Your task to perform on an android device: clear history in the chrome app Image 0: 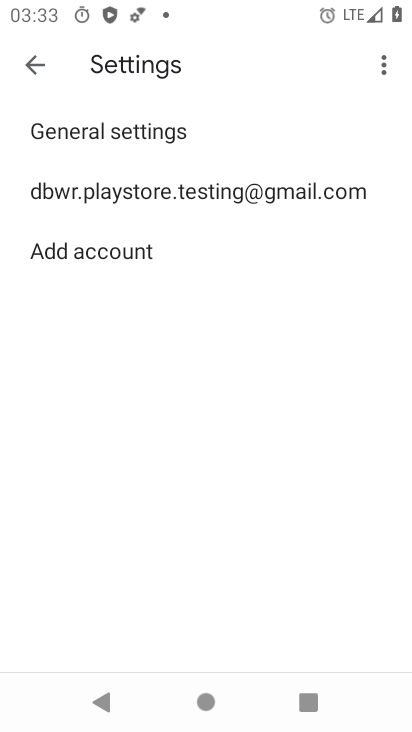
Step 0: click (270, 382)
Your task to perform on an android device: clear history in the chrome app Image 1: 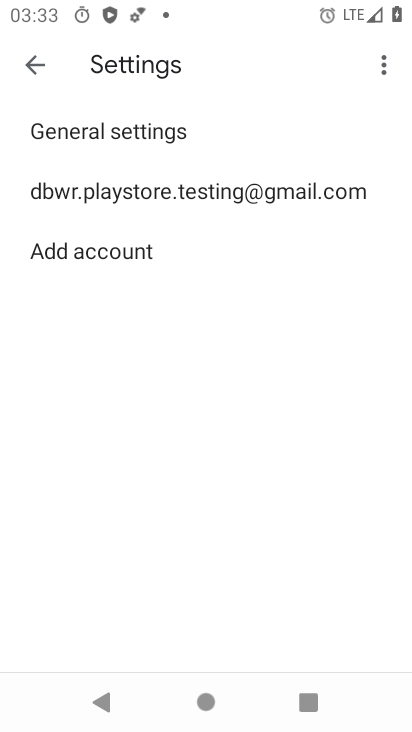
Step 1: press home button
Your task to perform on an android device: clear history in the chrome app Image 2: 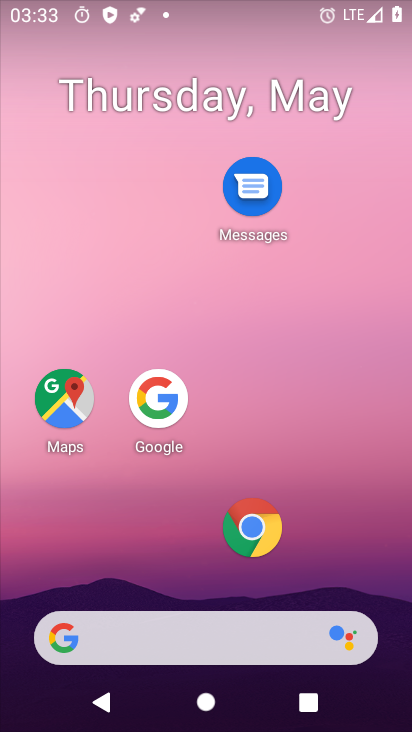
Step 2: drag from (204, 548) to (403, 437)
Your task to perform on an android device: clear history in the chrome app Image 3: 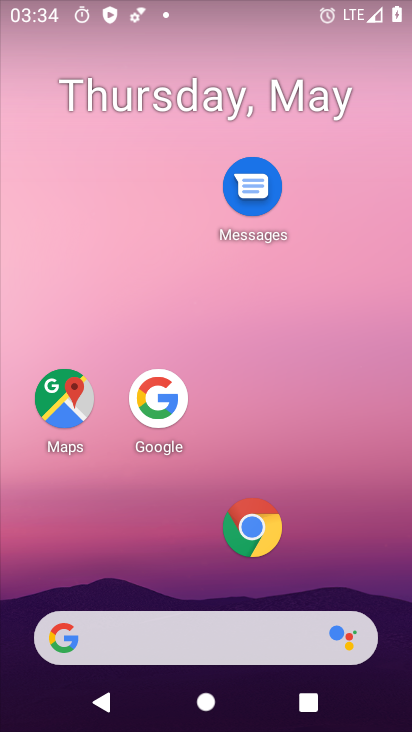
Step 3: click (261, 525)
Your task to perform on an android device: clear history in the chrome app Image 4: 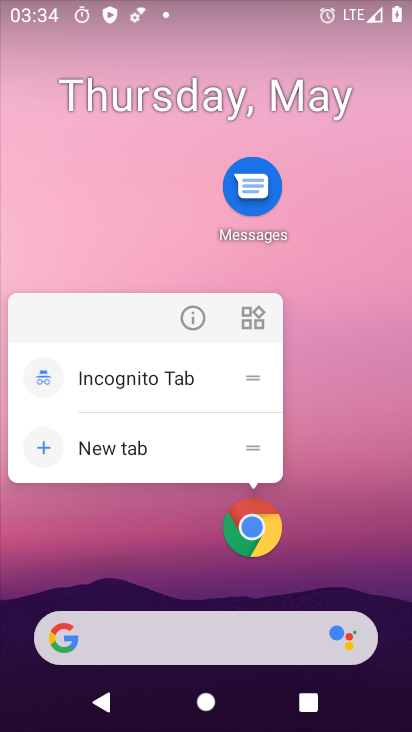
Step 4: click (204, 320)
Your task to perform on an android device: clear history in the chrome app Image 5: 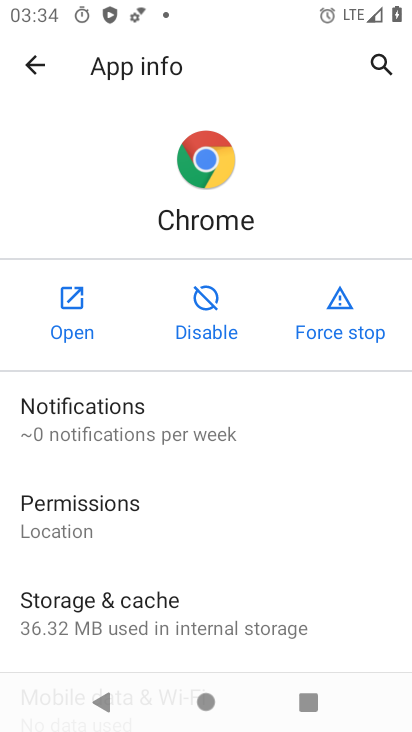
Step 5: click (85, 303)
Your task to perform on an android device: clear history in the chrome app Image 6: 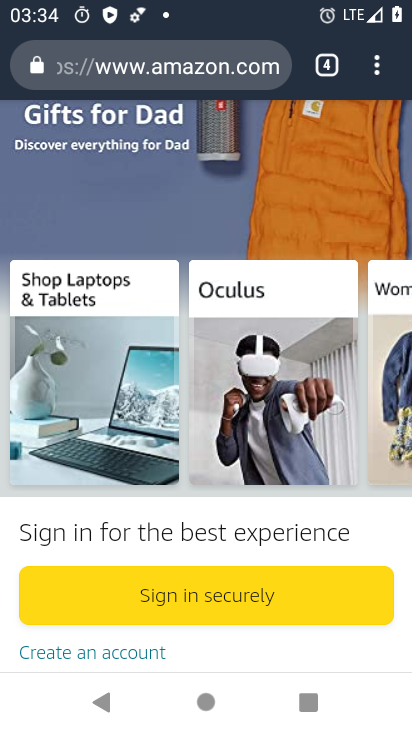
Step 6: click (370, 58)
Your task to perform on an android device: clear history in the chrome app Image 7: 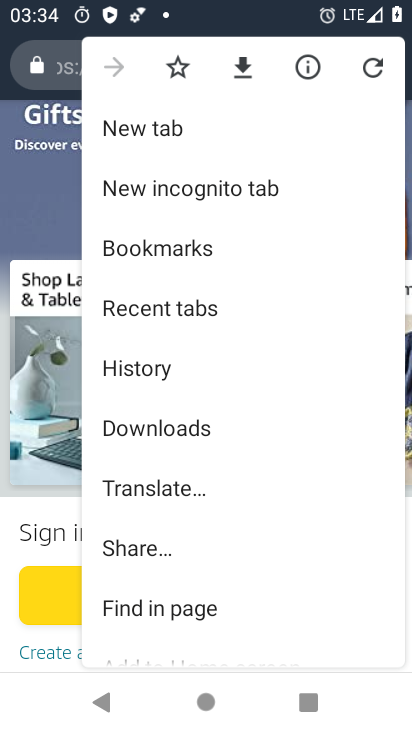
Step 7: click (180, 371)
Your task to perform on an android device: clear history in the chrome app Image 8: 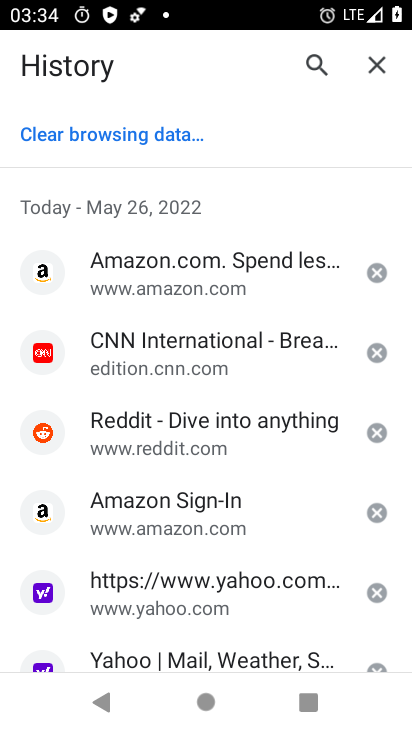
Step 8: click (112, 142)
Your task to perform on an android device: clear history in the chrome app Image 9: 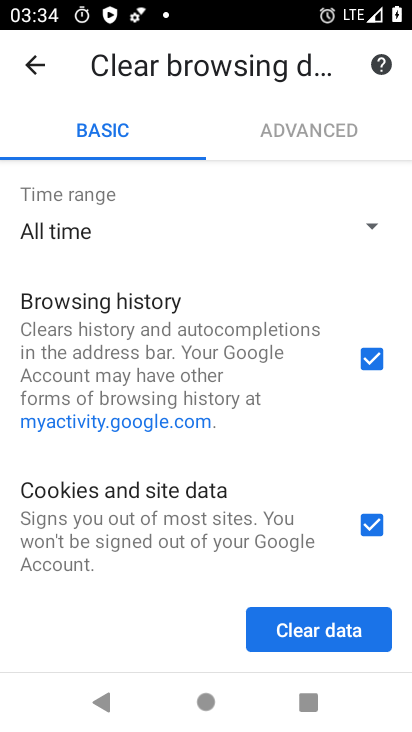
Step 9: click (290, 643)
Your task to perform on an android device: clear history in the chrome app Image 10: 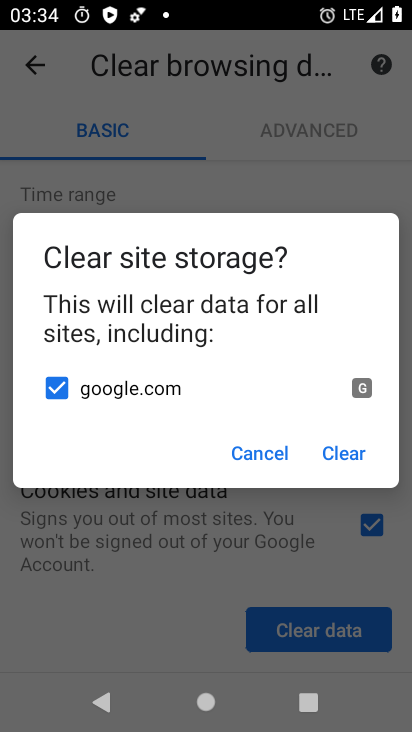
Step 10: click (328, 453)
Your task to perform on an android device: clear history in the chrome app Image 11: 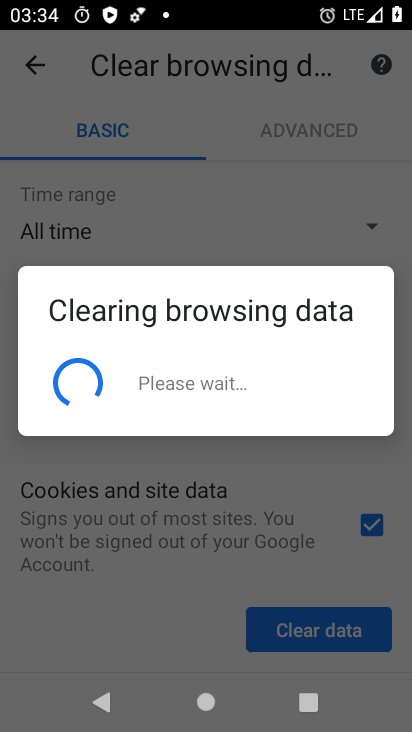
Step 11: task complete